Your task to perform on an android device: turn on translation in the chrome app Image 0: 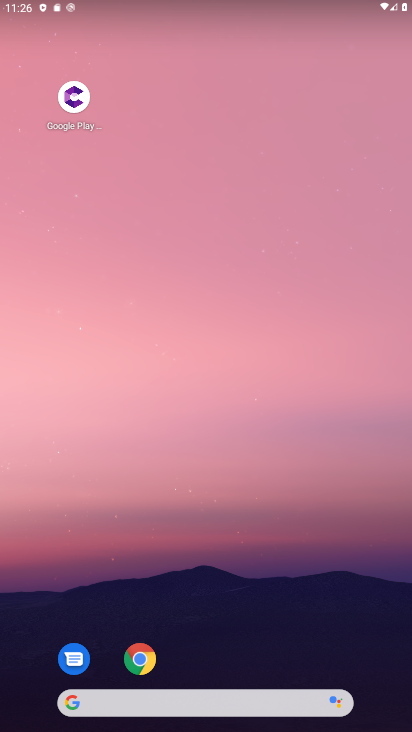
Step 0: drag from (211, 627) to (265, 107)
Your task to perform on an android device: turn on translation in the chrome app Image 1: 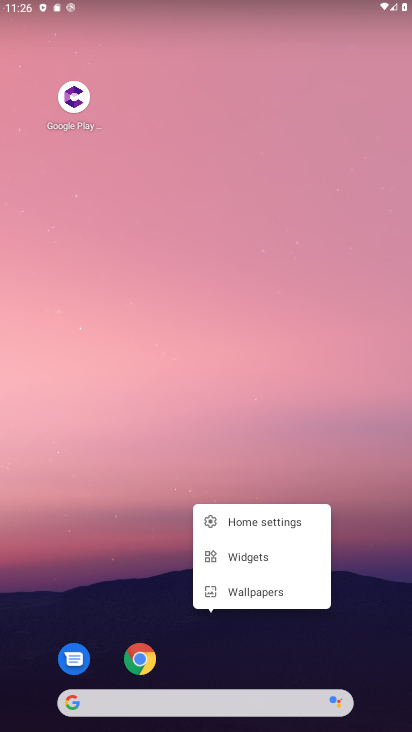
Step 1: drag from (198, 673) to (234, 98)
Your task to perform on an android device: turn on translation in the chrome app Image 2: 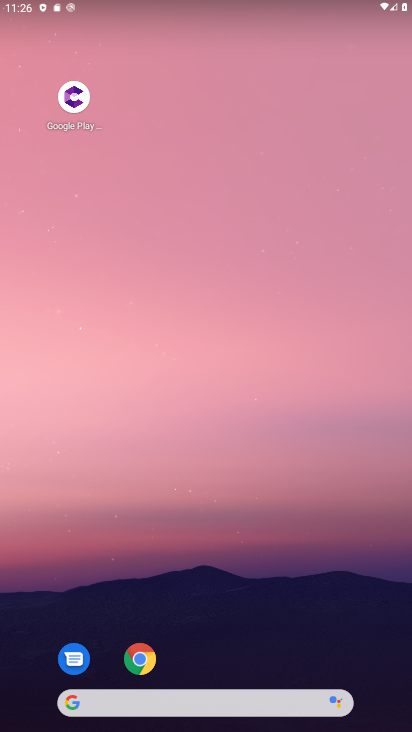
Step 2: drag from (185, 632) to (257, 43)
Your task to perform on an android device: turn on translation in the chrome app Image 3: 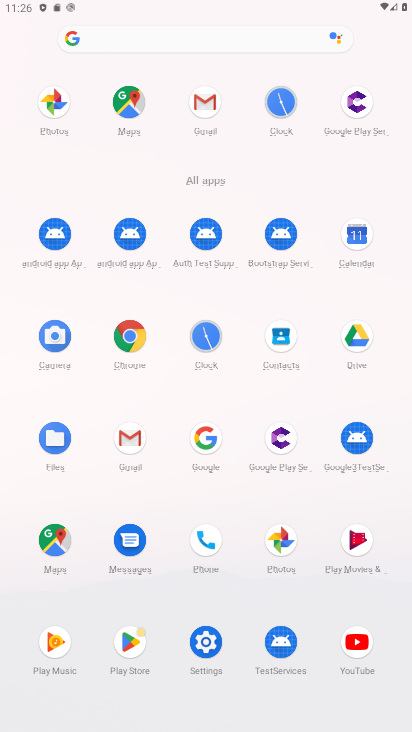
Step 3: click (129, 332)
Your task to perform on an android device: turn on translation in the chrome app Image 4: 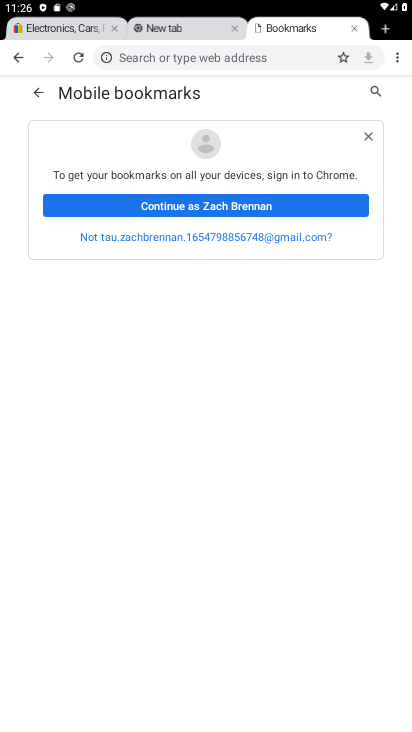
Step 4: drag from (216, 584) to (213, 407)
Your task to perform on an android device: turn on translation in the chrome app Image 5: 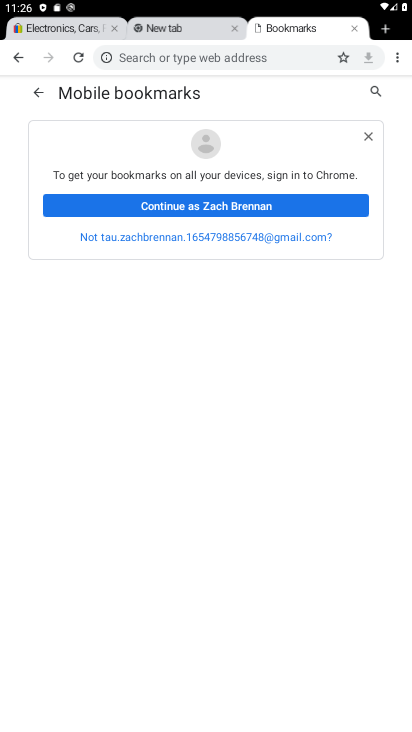
Step 5: click (396, 53)
Your task to perform on an android device: turn on translation in the chrome app Image 6: 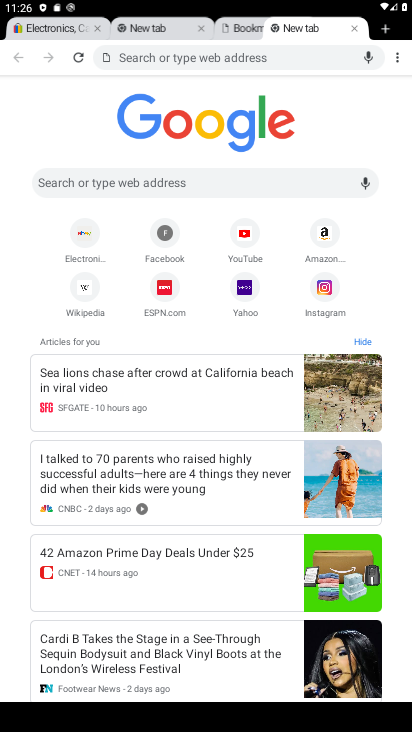
Step 6: click (405, 63)
Your task to perform on an android device: turn on translation in the chrome app Image 7: 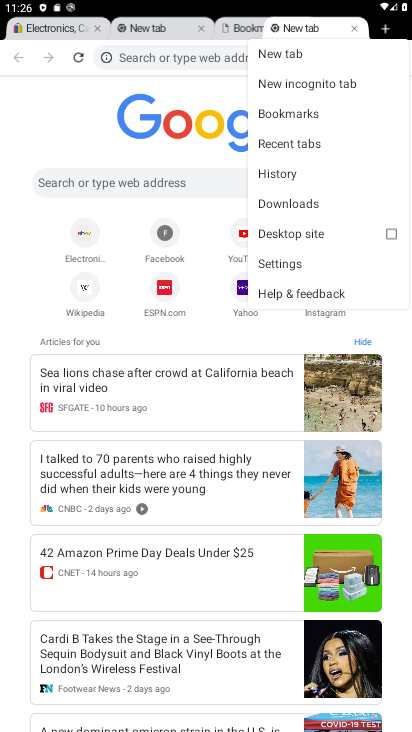
Step 7: click (296, 264)
Your task to perform on an android device: turn on translation in the chrome app Image 8: 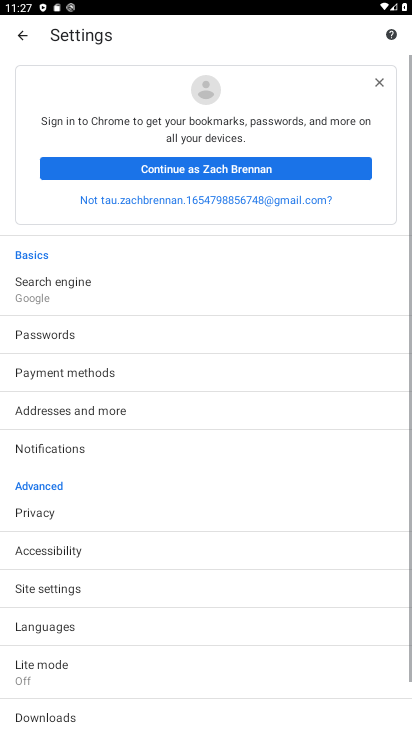
Step 8: drag from (154, 559) to (208, 263)
Your task to perform on an android device: turn on translation in the chrome app Image 9: 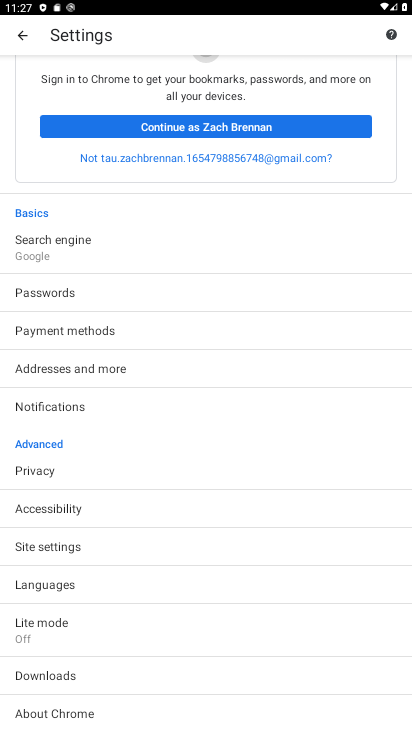
Step 9: drag from (124, 661) to (195, 329)
Your task to perform on an android device: turn on translation in the chrome app Image 10: 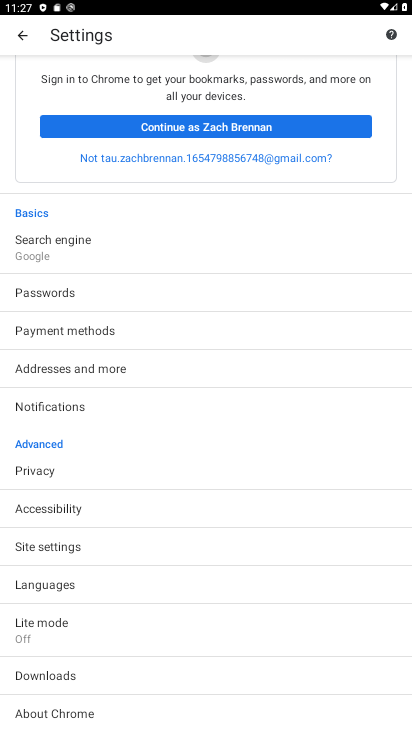
Step 10: click (95, 583)
Your task to perform on an android device: turn on translation in the chrome app Image 11: 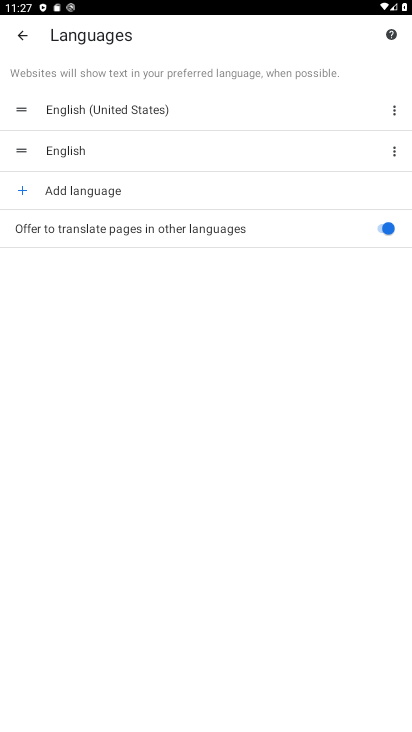
Step 11: task complete